Your task to perform on an android device: Go to CNN.com Image 0: 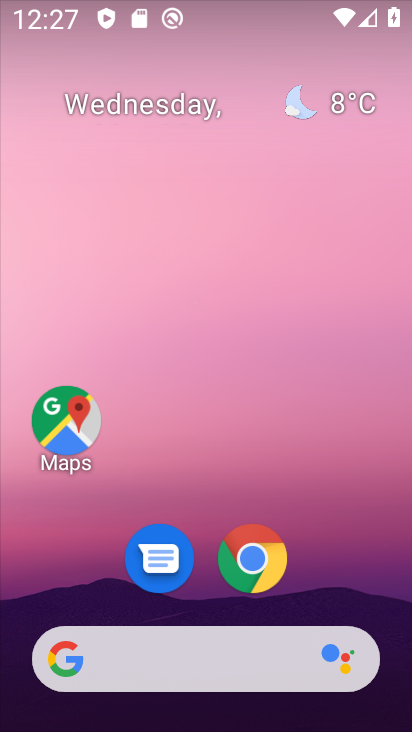
Step 0: drag from (315, 571) to (224, 5)
Your task to perform on an android device: Go to CNN.com Image 1: 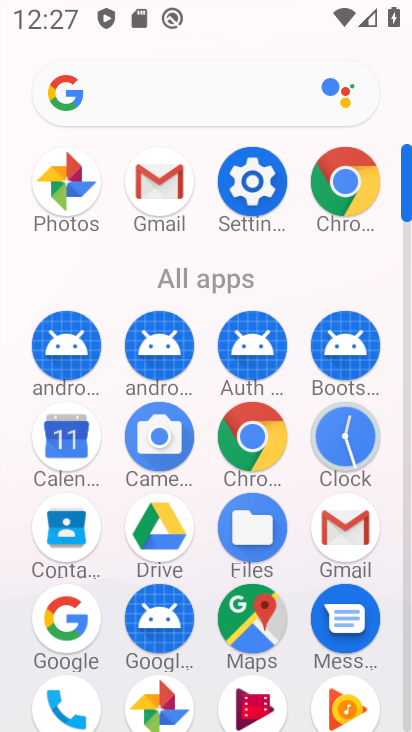
Step 1: click (246, 431)
Your task to perform on an android device: Go to CNN.com Image 2: 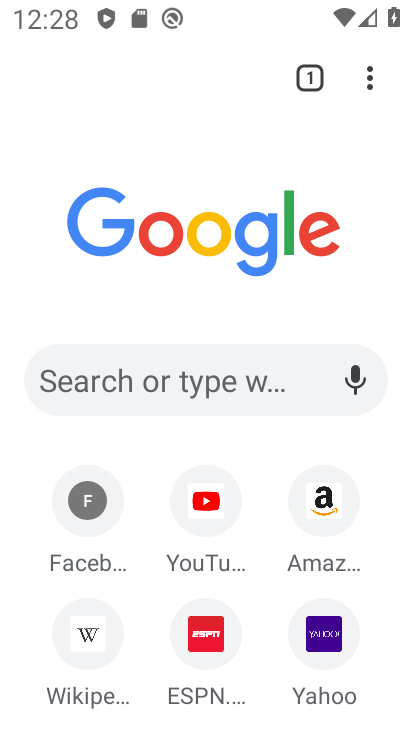
Step 2: click (128, 366)
Your task to perform on an android device: Go to CNN.com Image 3: 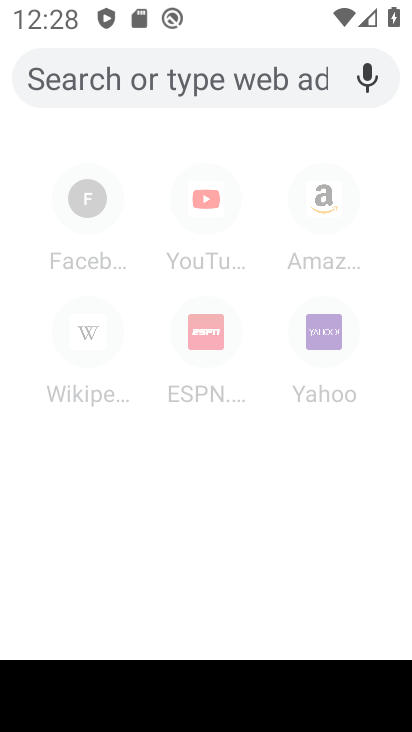
Step 3: type "CNN.com"
Your task to perform on an android device: Go to CNN.com Image 4: 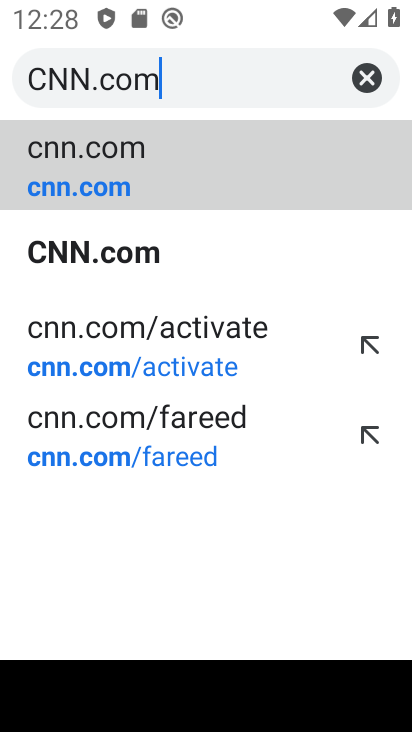
Step 4: type ""
Your task to perform on an android device: Go to CNN.com Image 5: 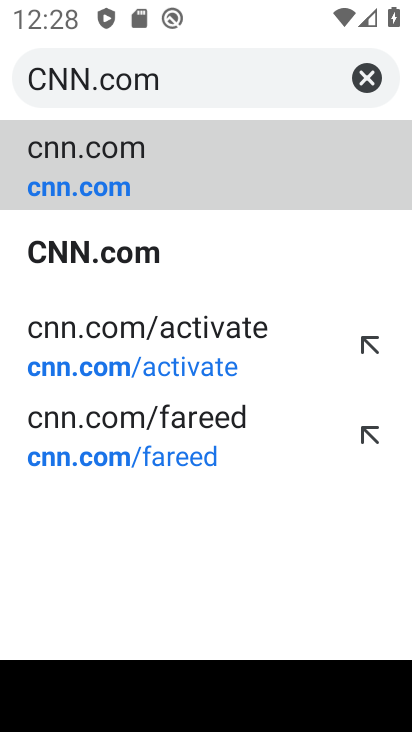
Step 5: click (133, 172)
Your task to perform on an android device: Go to CNN.com Image 6: 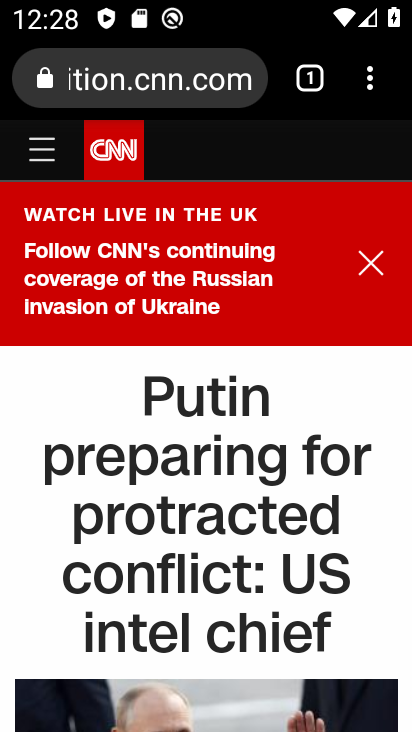
Step 6: task complete